Your task to perform on an android device: Search for sushi restaurants on Maps Image 0: 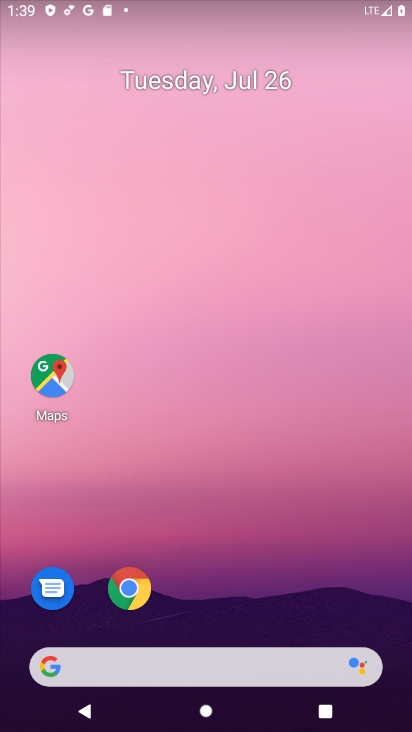
Step 0: drag from (201, 631) to (198, 222)
Your task to perform on an android device: Search for sushi restaurants on Maps Image 1: 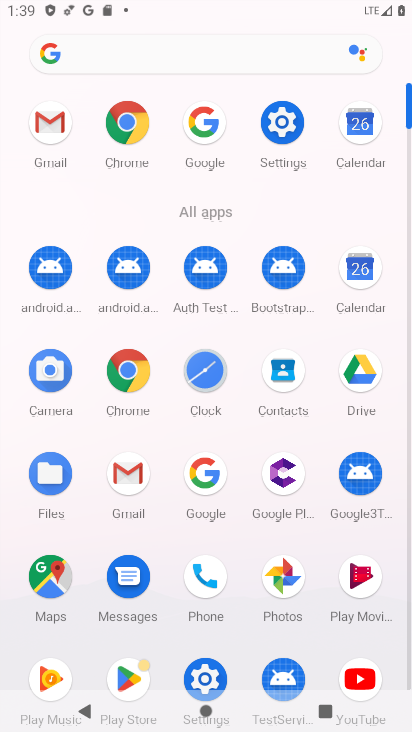
Step 1: click (44, 576)
Your task to perform on an android device: Search for sushi restaurants on Maps Image 2: 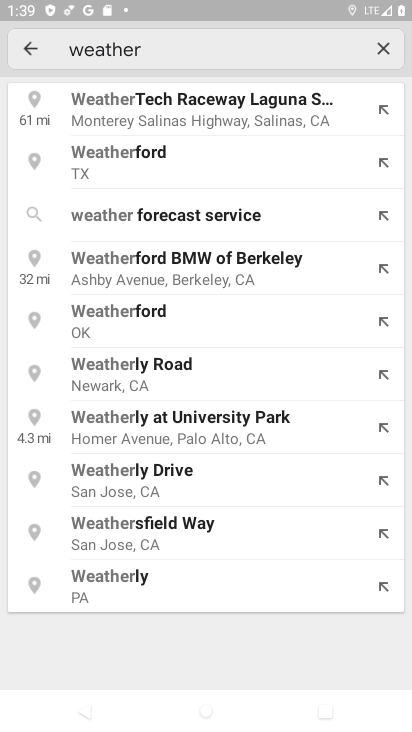
Step 2: click (33, 49)
Your task to perform on an android device: Search for sushi restaurants on Maps Image 3: 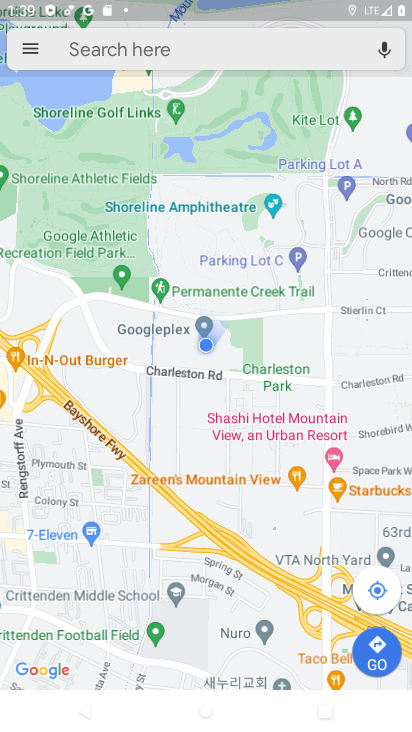
Step 3: click (147, 51)
Your task to perform on an android device: Search for sushi restaurants on Maps Image 4: 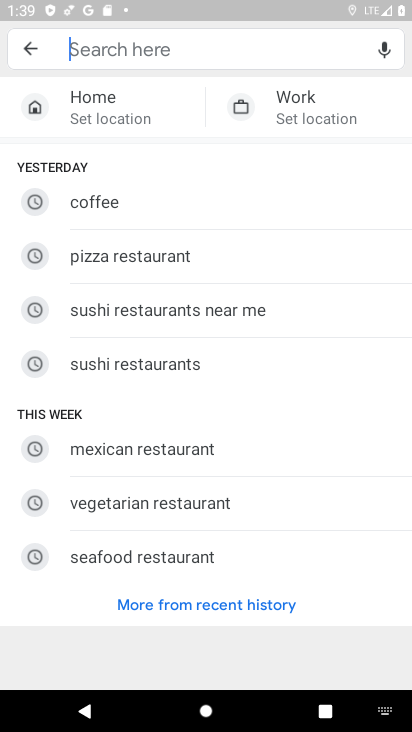
Step 4: click (113, 368)
Your task to perform on an android device: Search for sushi restaurants on Maps Image 5: 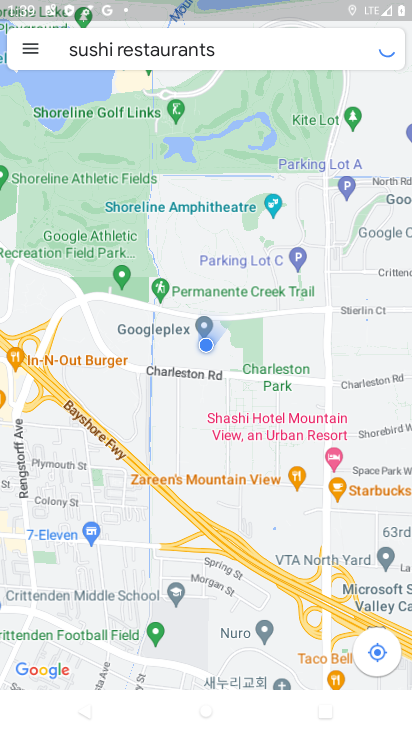
Step 5: task complete